Your task to perform on an android device: Go to Reddit.com Image 0: 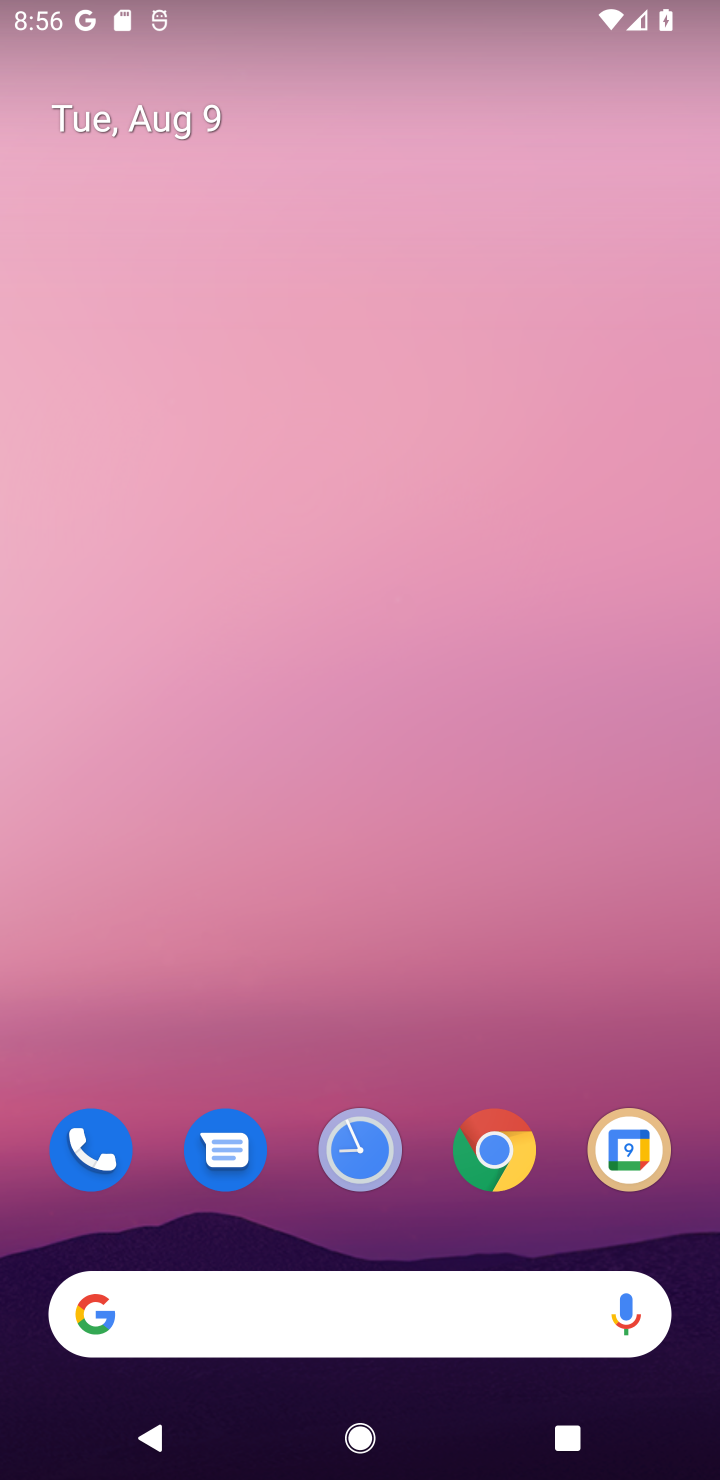
Step 0: drag from (301, 1177) to (455, 433)
Your task to perform on an android device: Go to Reddit.com Image 1: 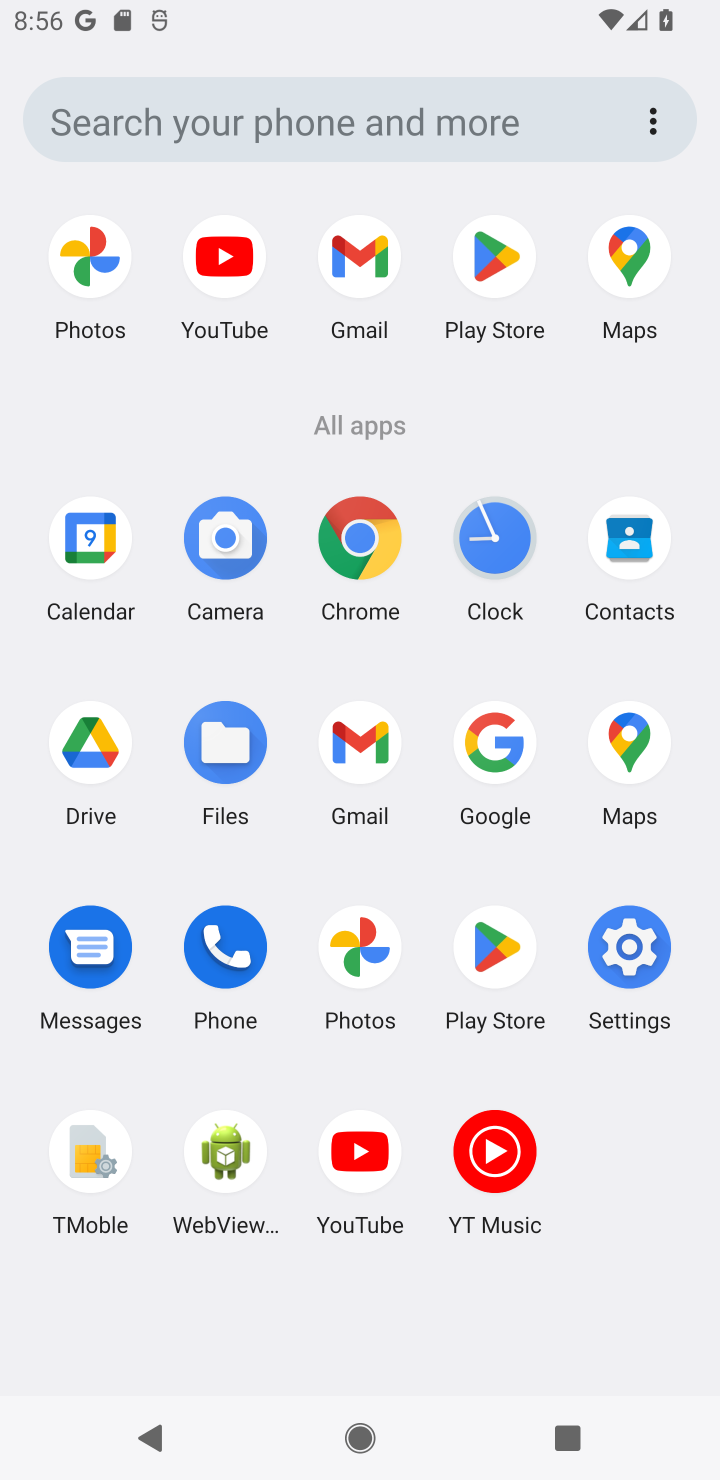
Step 1: click (382, 572)
Your task to perform on an android device: Go to Reddit.com Image 2: 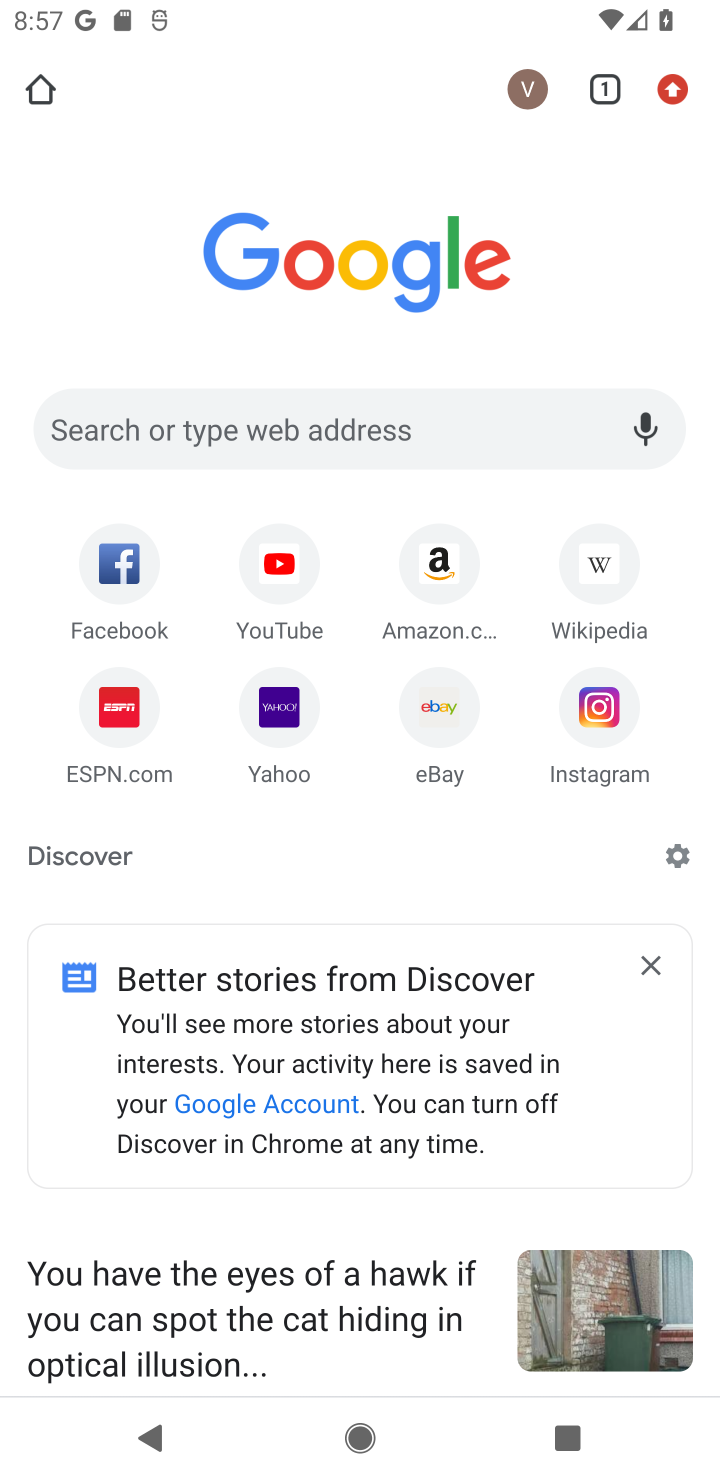
Step 2: click (471, 452)
Your task to perform on an android device: Go to Reddit.com Image 3: 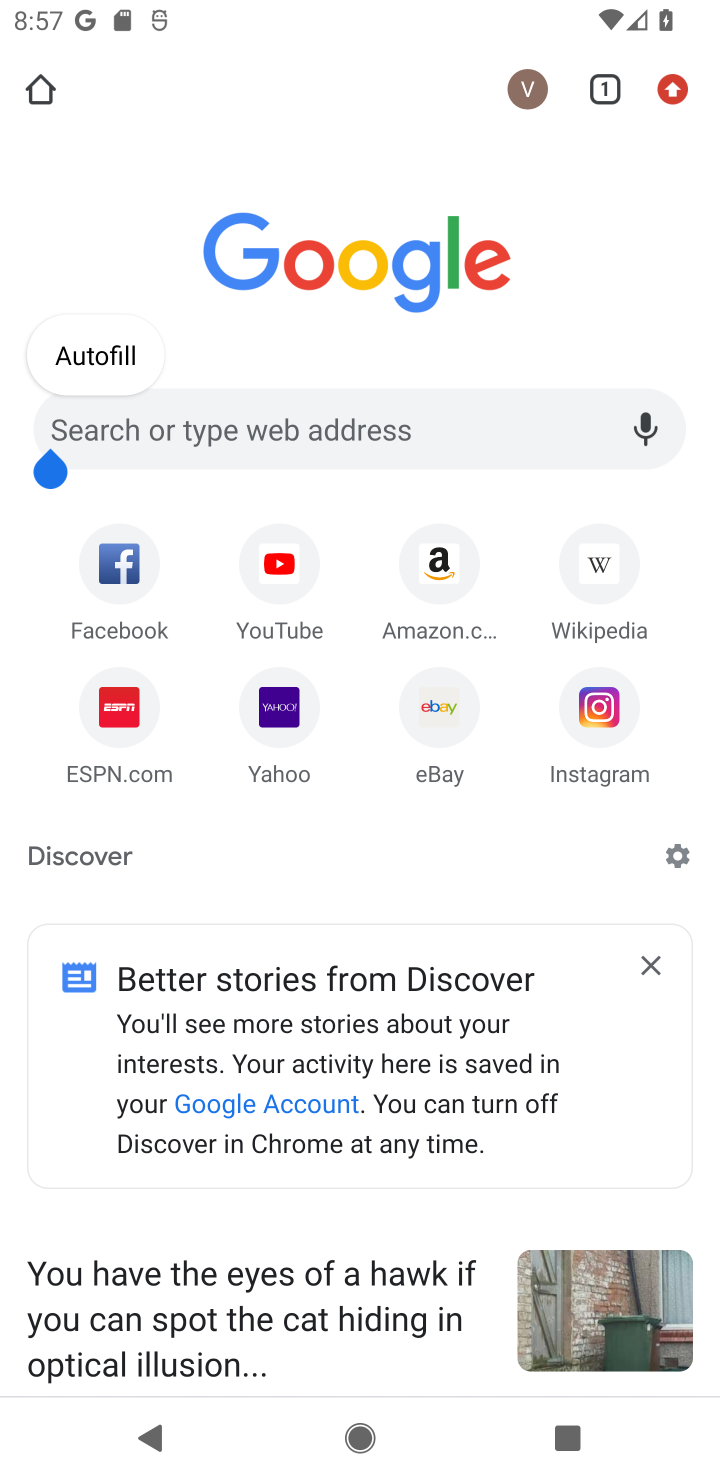
Step 3: click (502, 427)
Your task to perform on an android device: Go to Reddit.com Image 4: 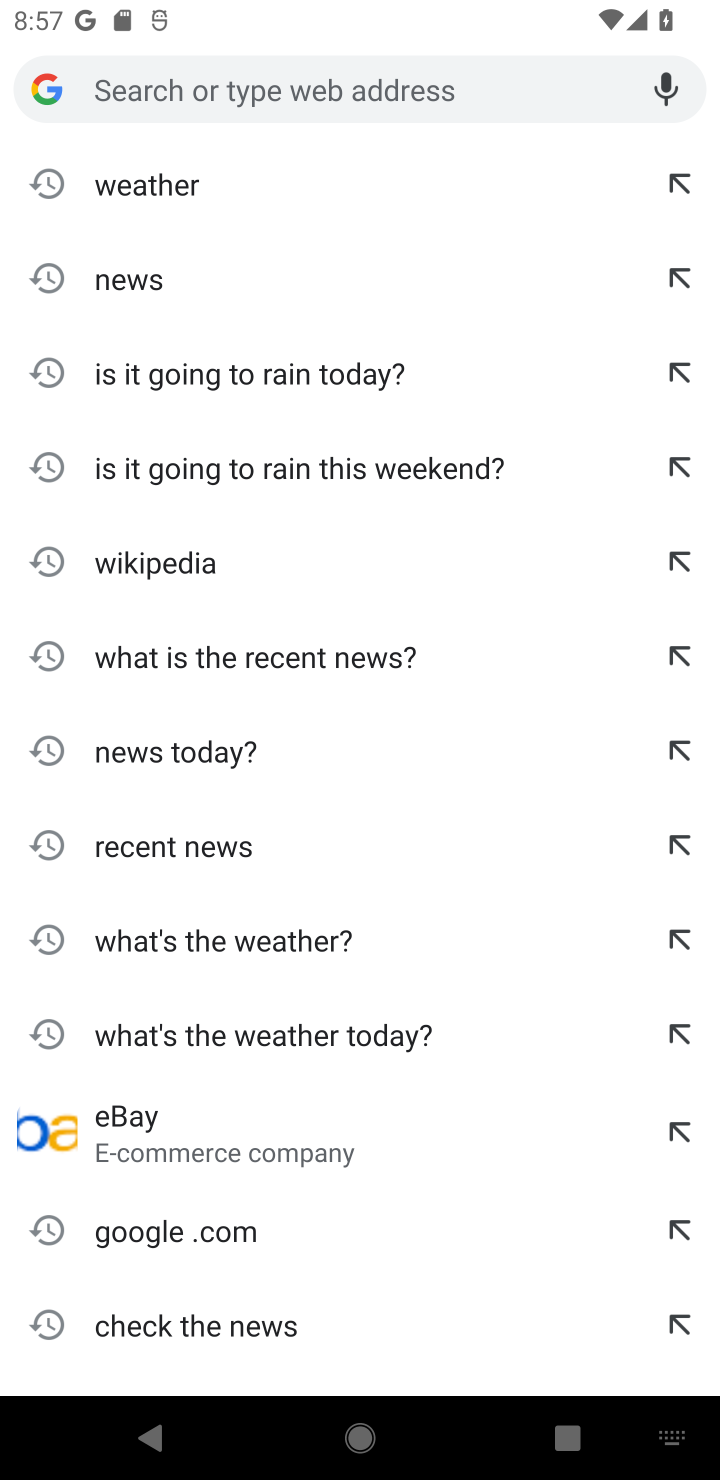
Step 4: press home button
Your task to perform on an android device: Go to Reddit.com Image 5: 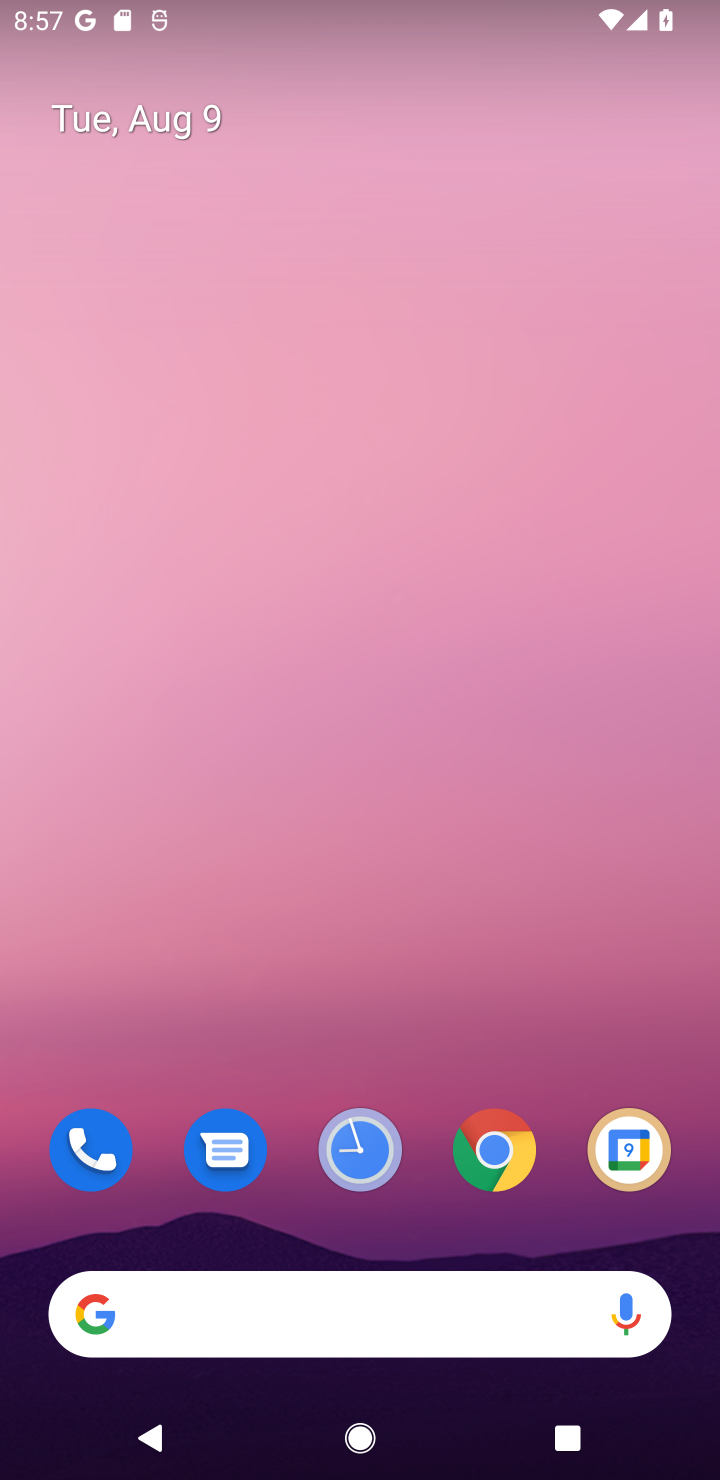
Step 5: click (474, 1148)
Your task to perform on an android device: Go to Reddit.com Image 6: 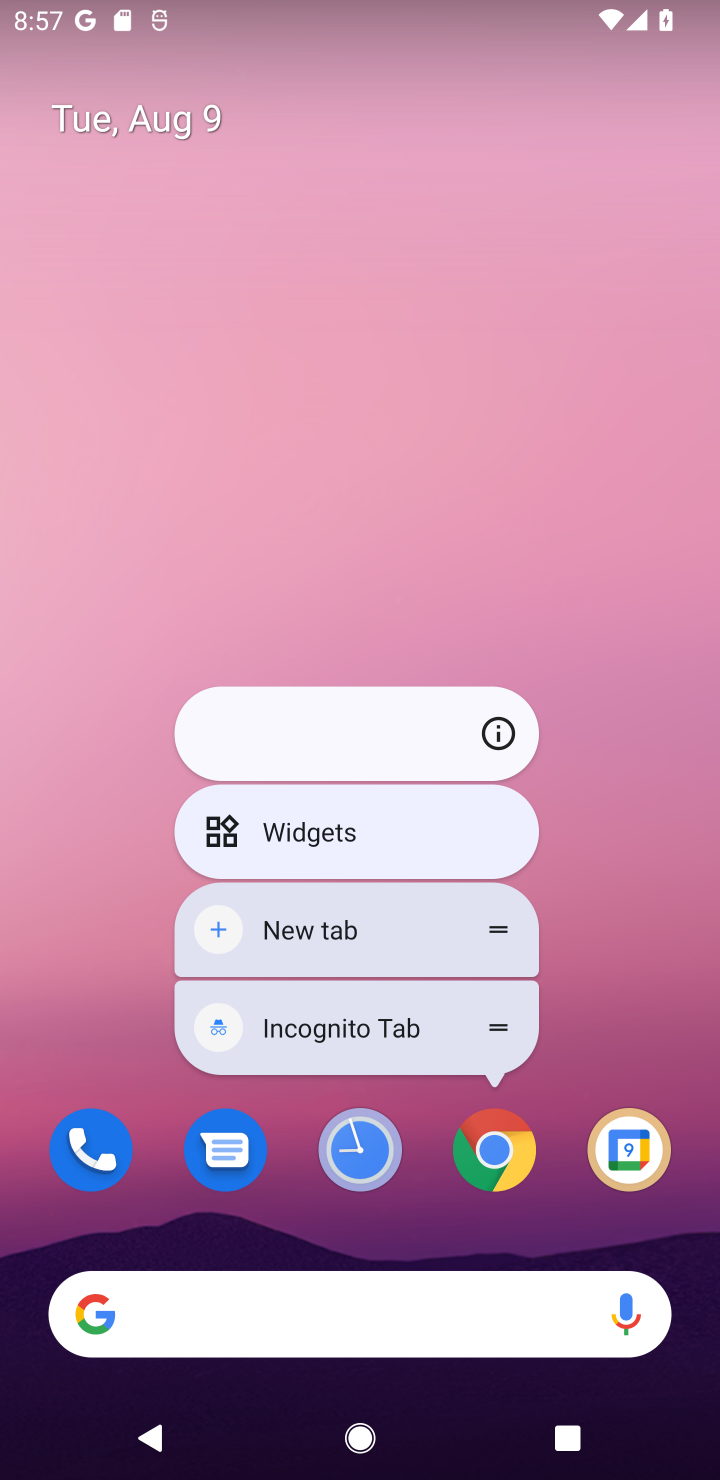
Step 6: click (506, 1156)
Your task to perform on an android device: Go to Reddit.com Image 7: 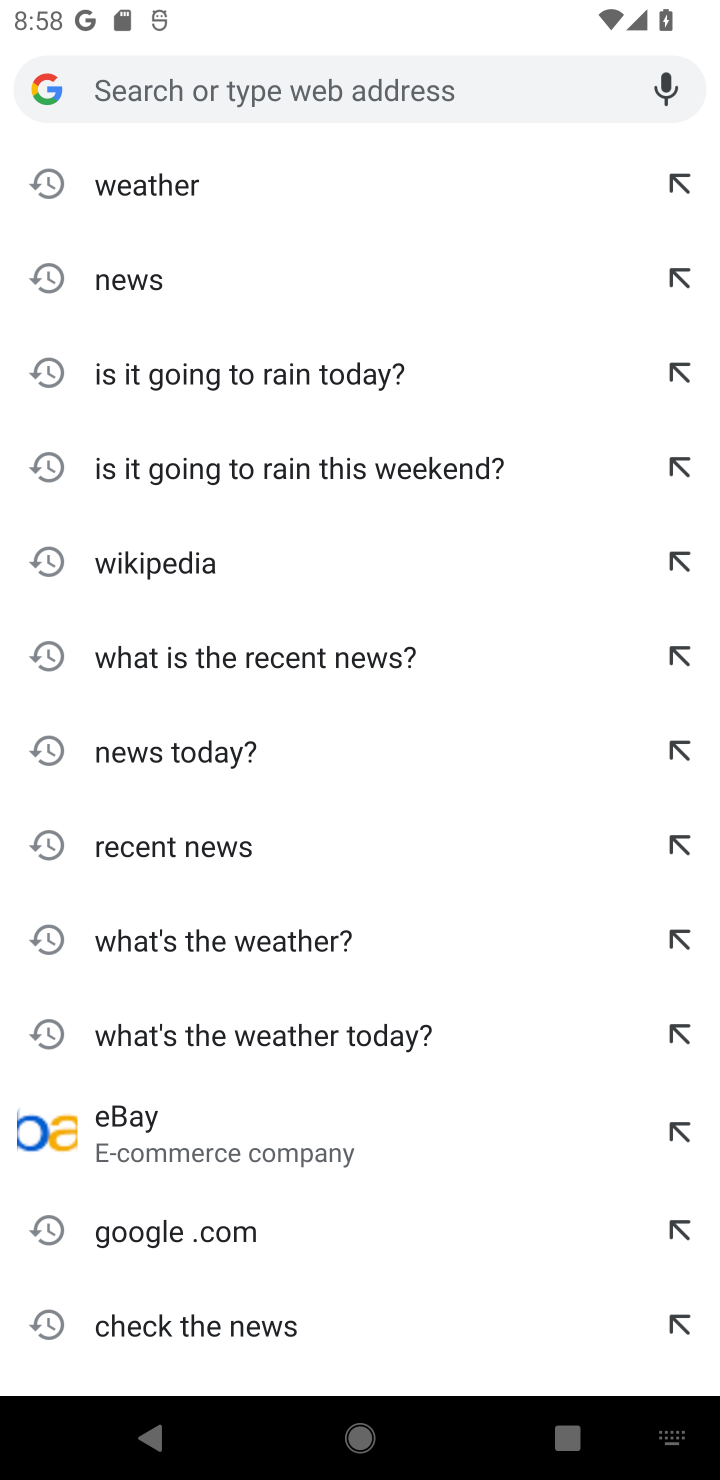
Step 7: type "reddit"
Your task to perform on an android device: Go to Reddit.com Image 8: 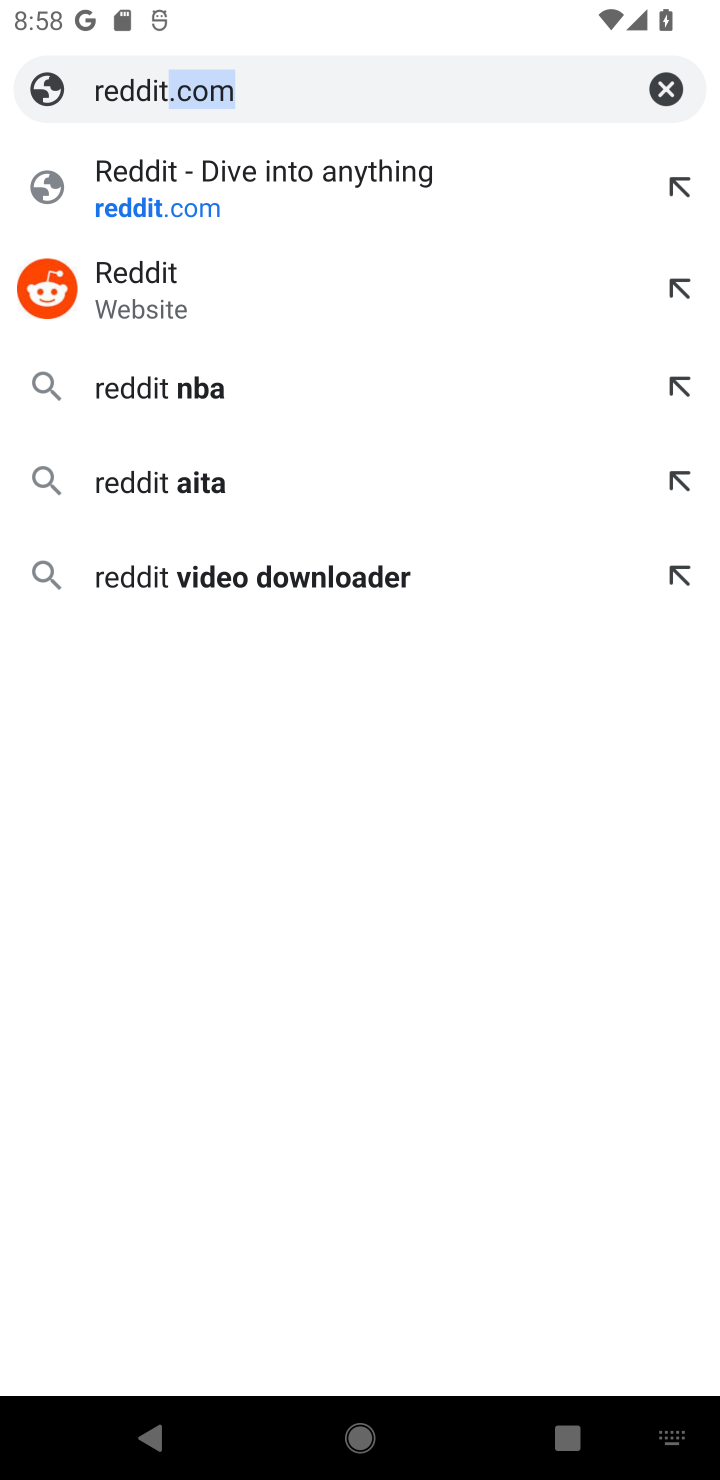
Step 8: click (243, 219)
Your task to perform on an android device: Go to Reddit.com Image 9: 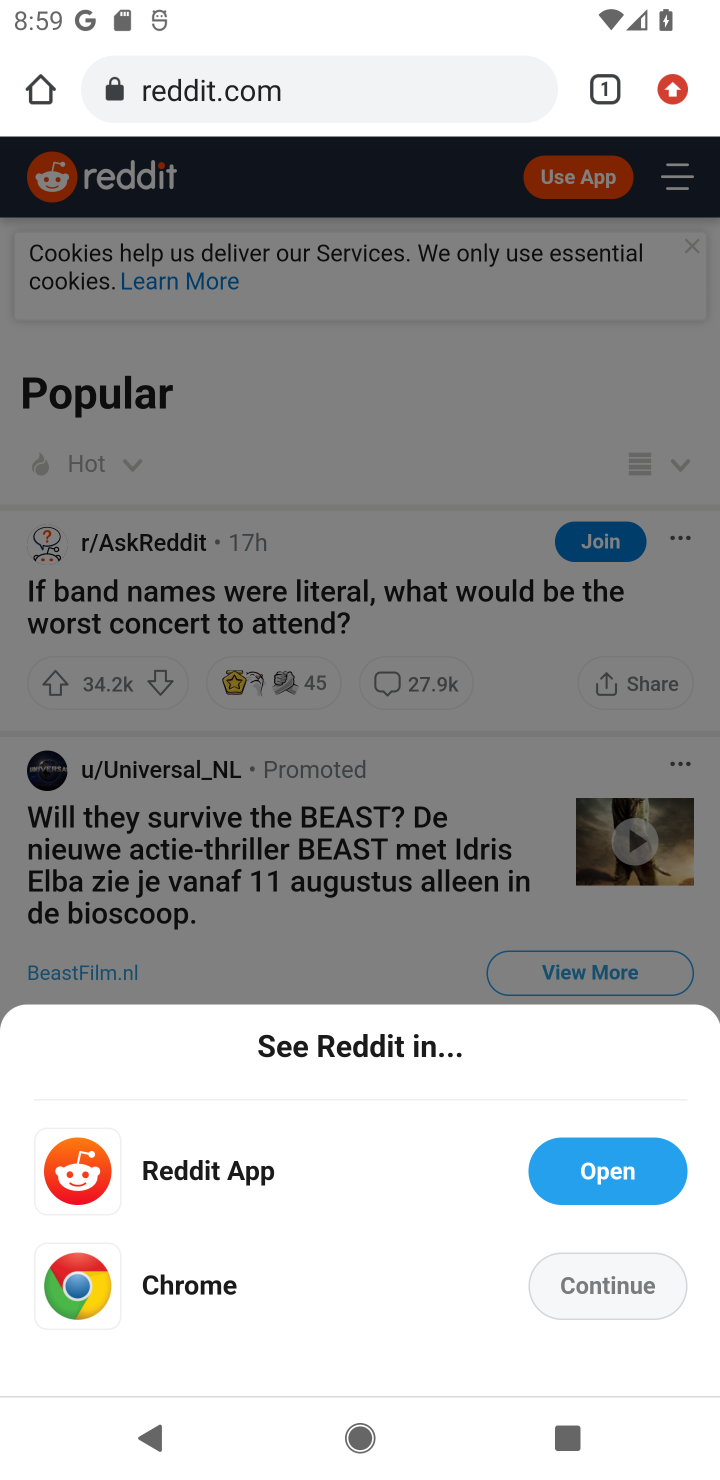
Step 9: task complete